Your task to perform on an android device: Open Chrome and go to settings Image 0: 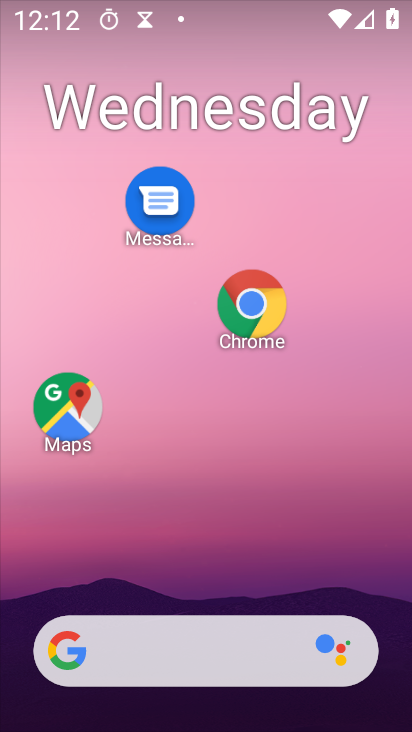
Step 0: drag from (262, 556) to (281, 224)
Your task to perform on an android device: Open Chrome and go to settings Image 1: 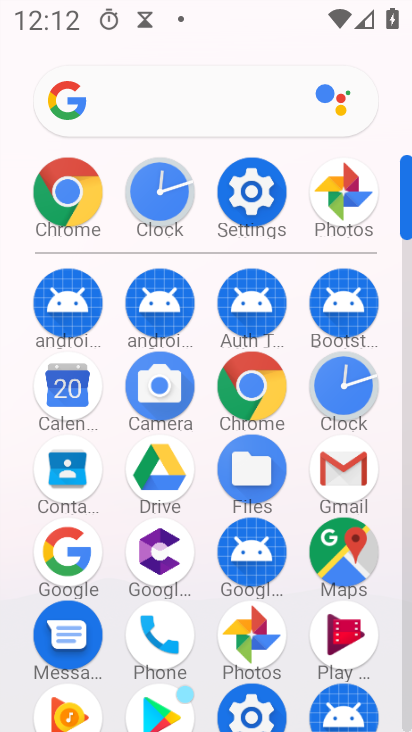
Step 1: click (256, 372)
Your task to perform on an android device: Open Chrome and go to settings Image 2: 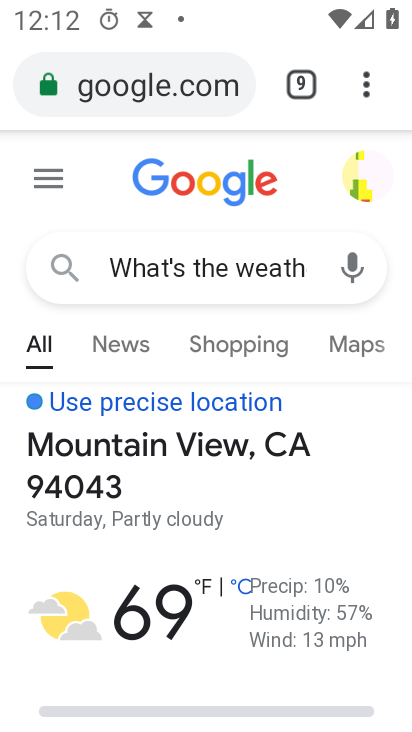
Step 2: click (370, 94)
Your task to perform on an android device: Open Chrome and go to settings Image 3: 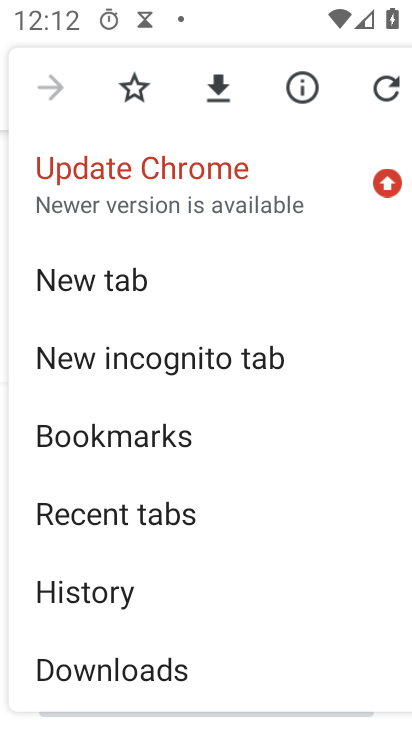
Step 3: drag from (238, 627) to (277, 215)
Your task to perform on an android device: Open Chrome and go to settings Image 4: 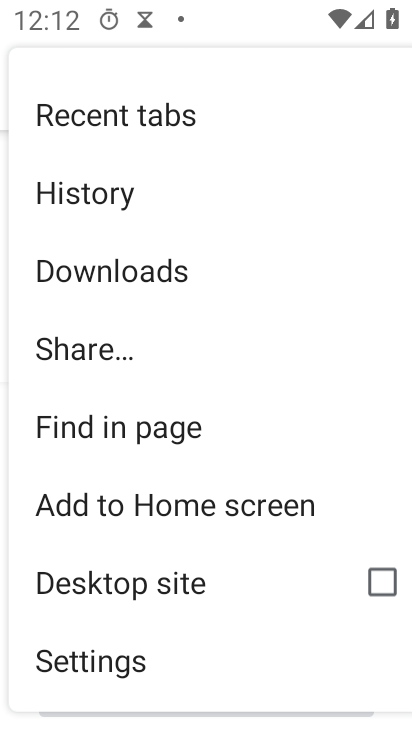
Step 4: click (136, 666)
Your task to perform on an android device: Open Chrome and go to settings Image 5: 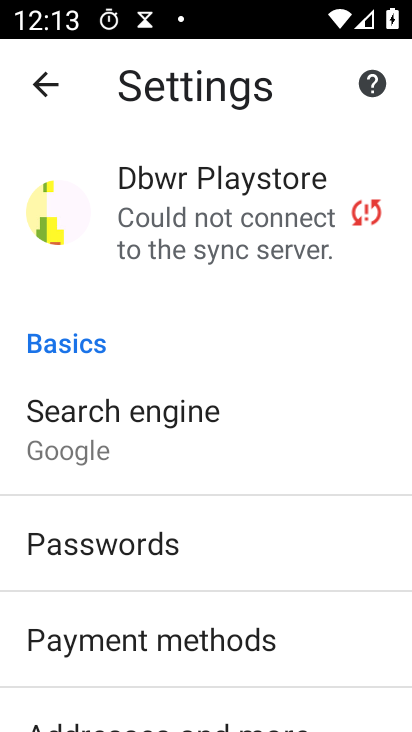
Step 5: task complete